Your task to perform on an android device: set the stopwatch Image 0: 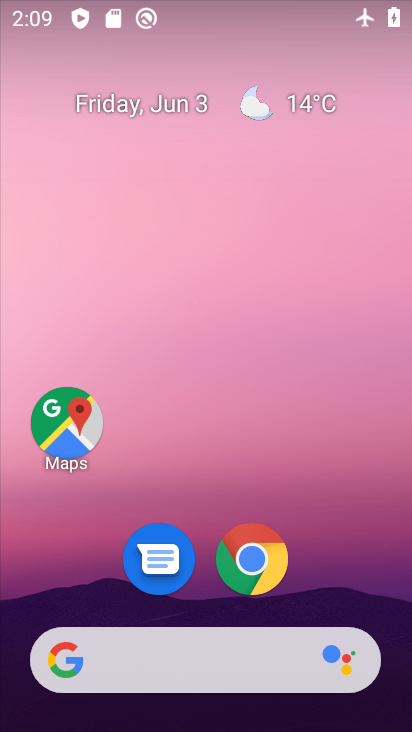
Step 0: drag from (231, 619) to (179, 5)
Your task to perform on an android device: set the stopwatch Image 1: 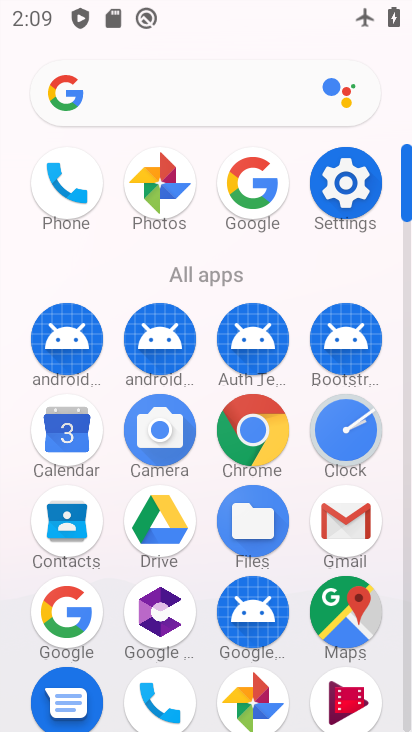
Step 1: click (366, 423)
Your task to perform on an android device: set the stopwatch Image 2: 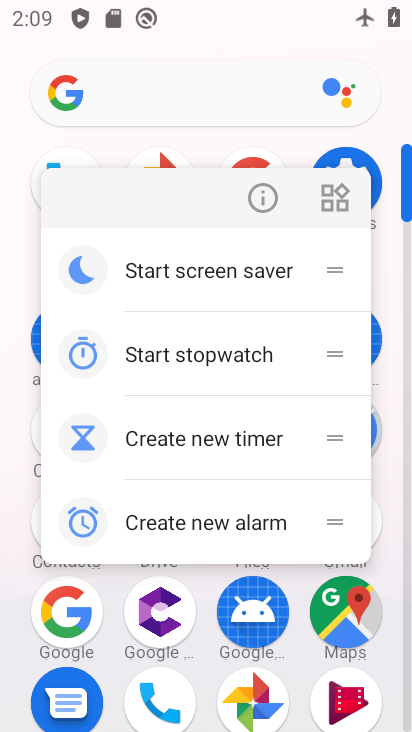
Step 2: click (246, 361)
Your task to perform on an android device: set the stopwatch Image 3: 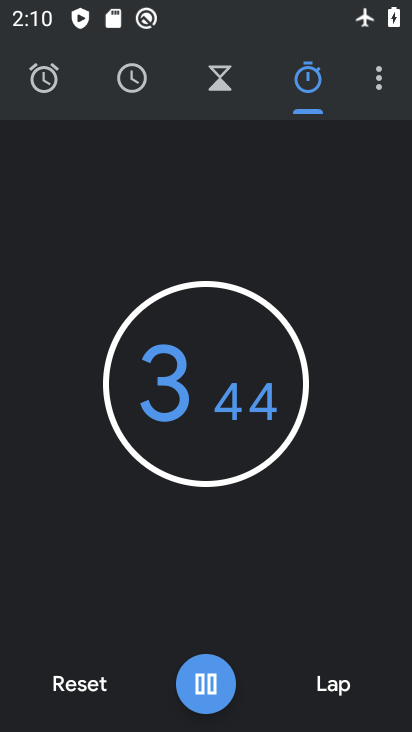
Step 3: click (194, 701)
Your task to perform on an android device: set the stopwatch Image 4: 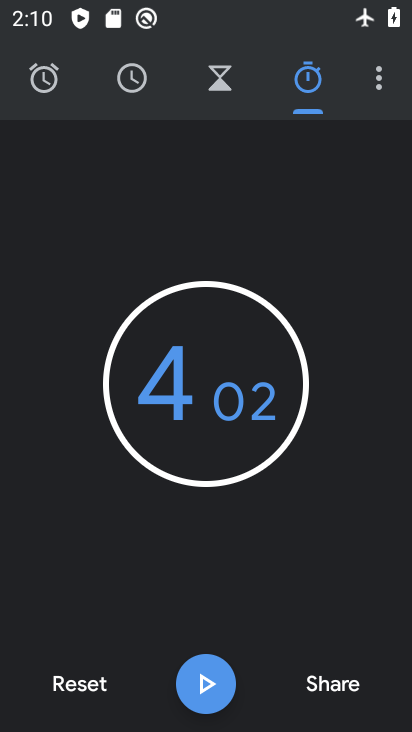
Step 4: task complete